Your task to perform on an android device: install app "Skype" Image 0: 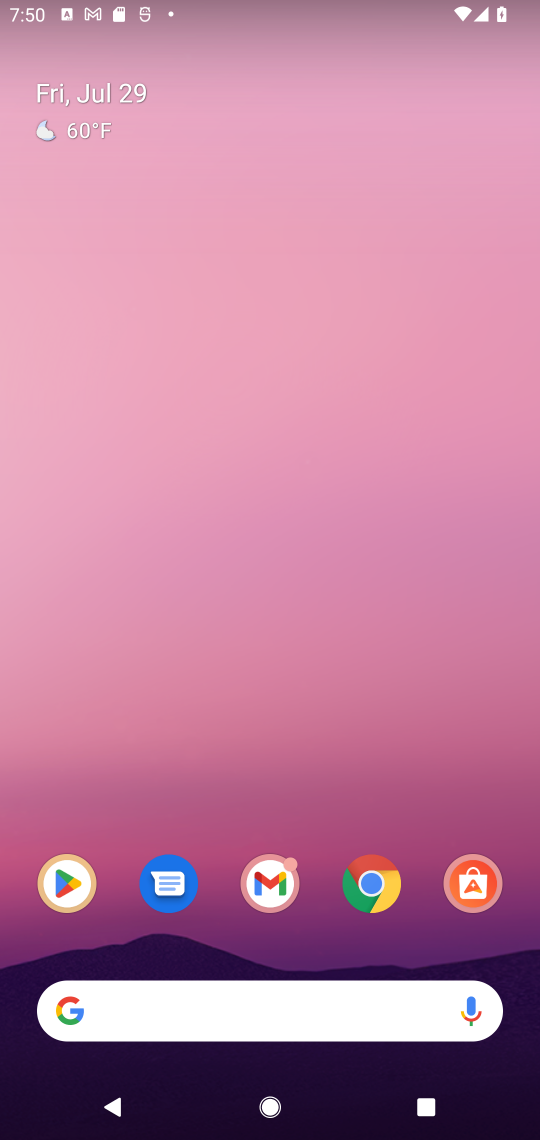
Step 0: click (84, 882)
Your task to perform on an android device: install app "Skype" Image 1: 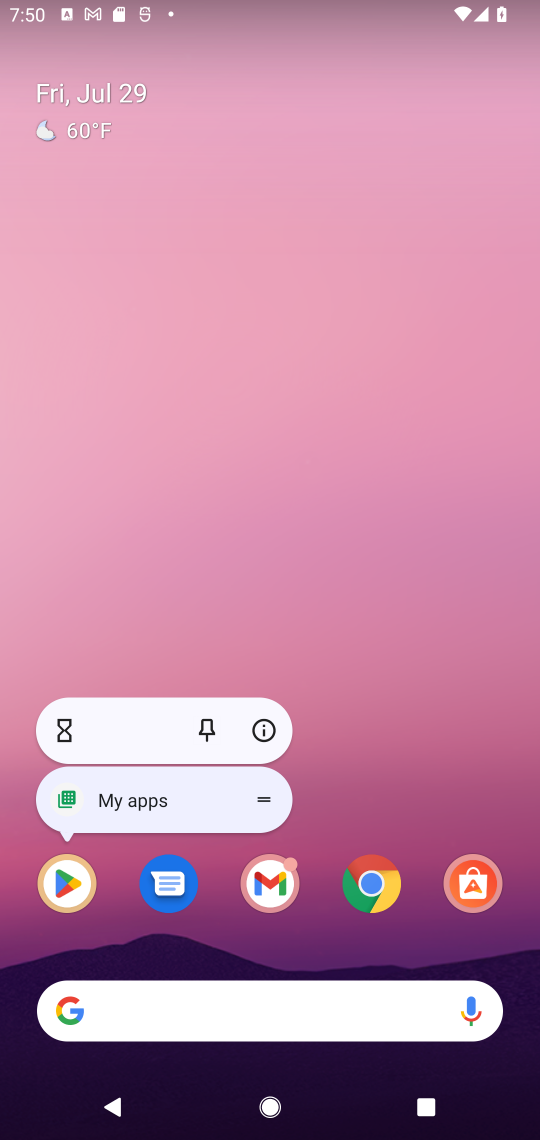
Step 1: click (54, 884)
Your task to perform on an android device: install app "Skype" Image 2: 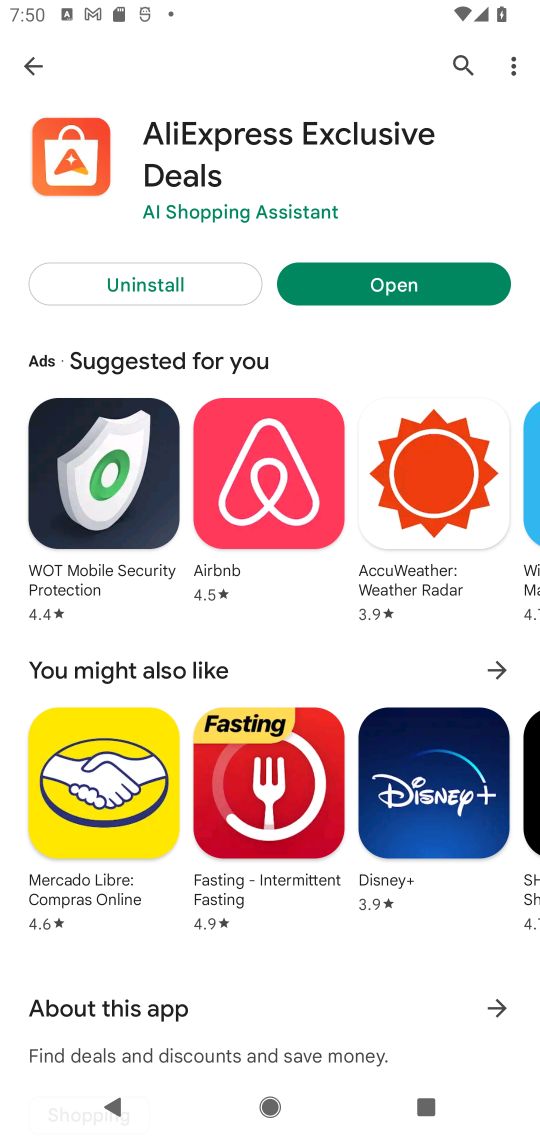
Step 2: click (466, 71)
Your task to perform on an android device: install app "Skype" Image 3: 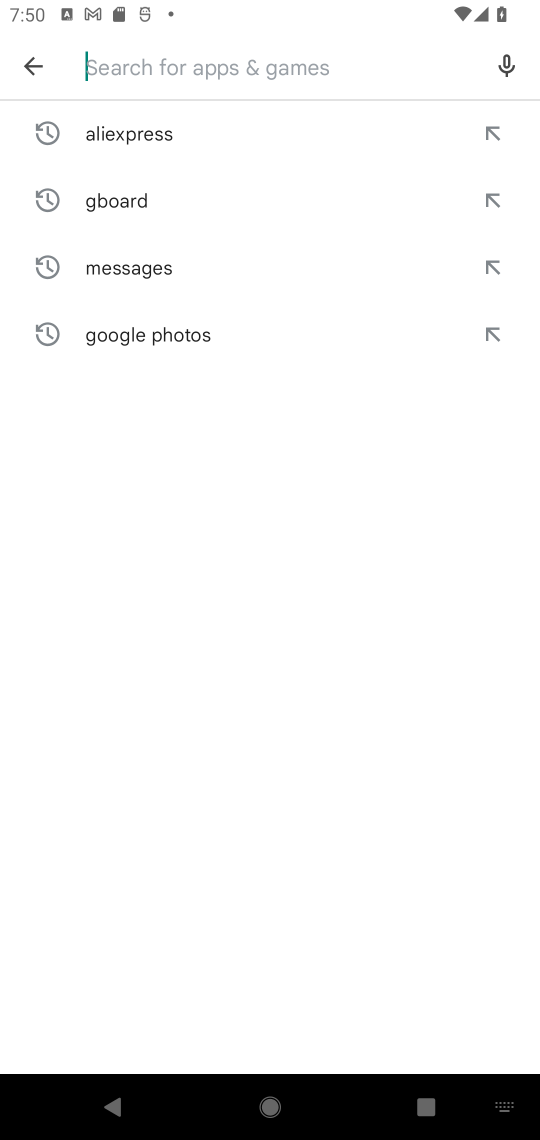
Step 3: click (141, 57)
Your task to perform on an android device: install app "Skype" Image 4: 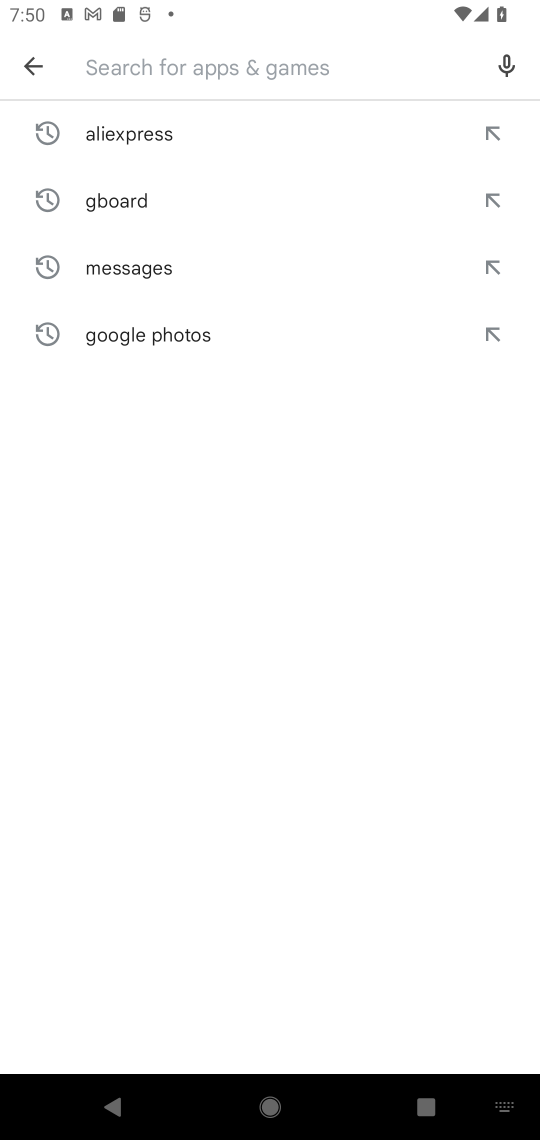
Step 4: type "skype"
Your task to perform on an android device: install app "Skype" Image 5: 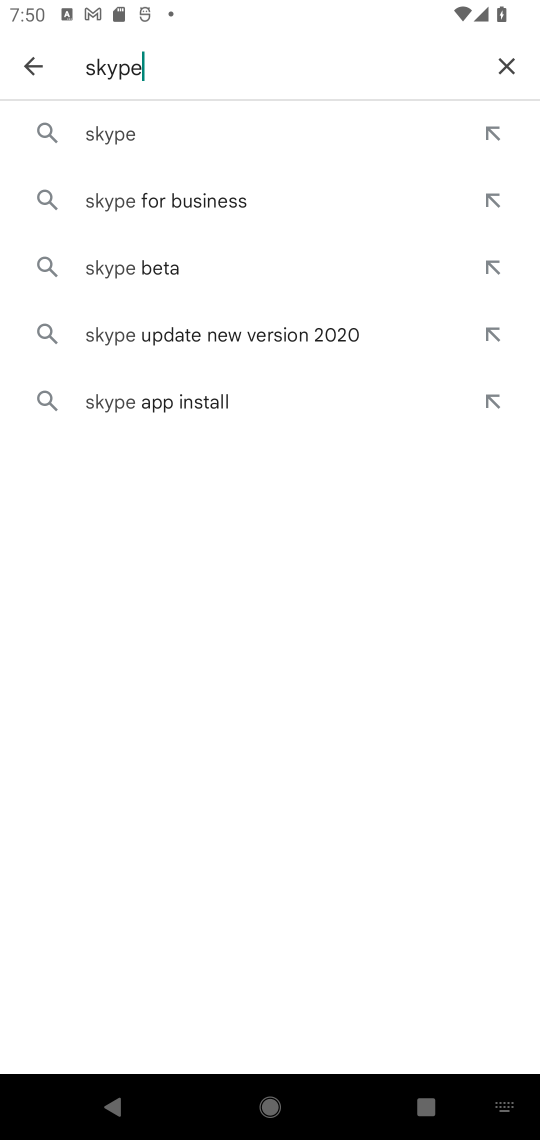
Step 5: click (154, 119)
Your task to perform on an android device: install app "Skype" Image 6: 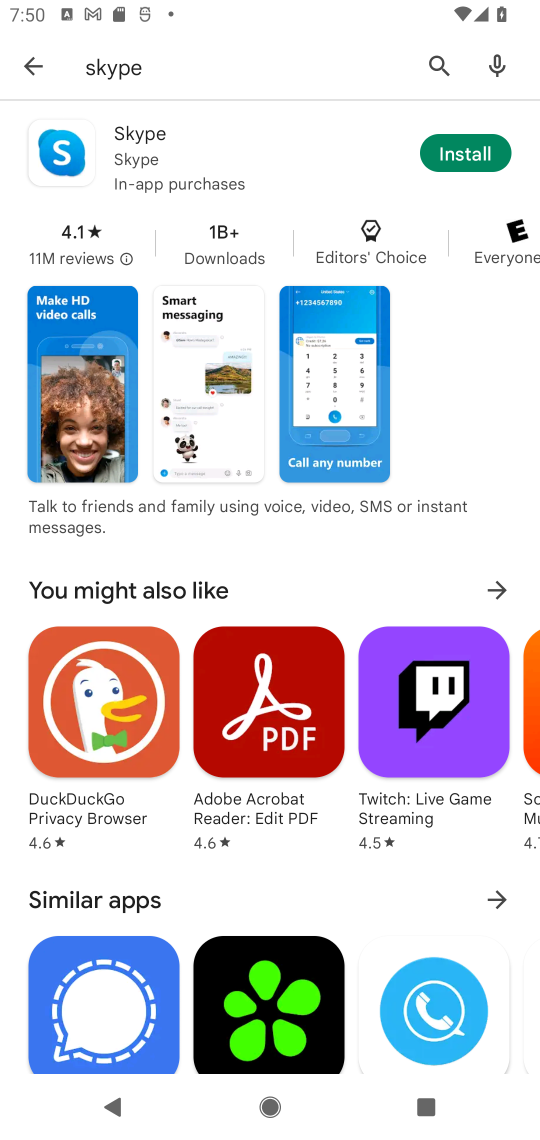
Step 6: click (452, 158)
Your task to perform on an android device: install app "Skype" Image 7: 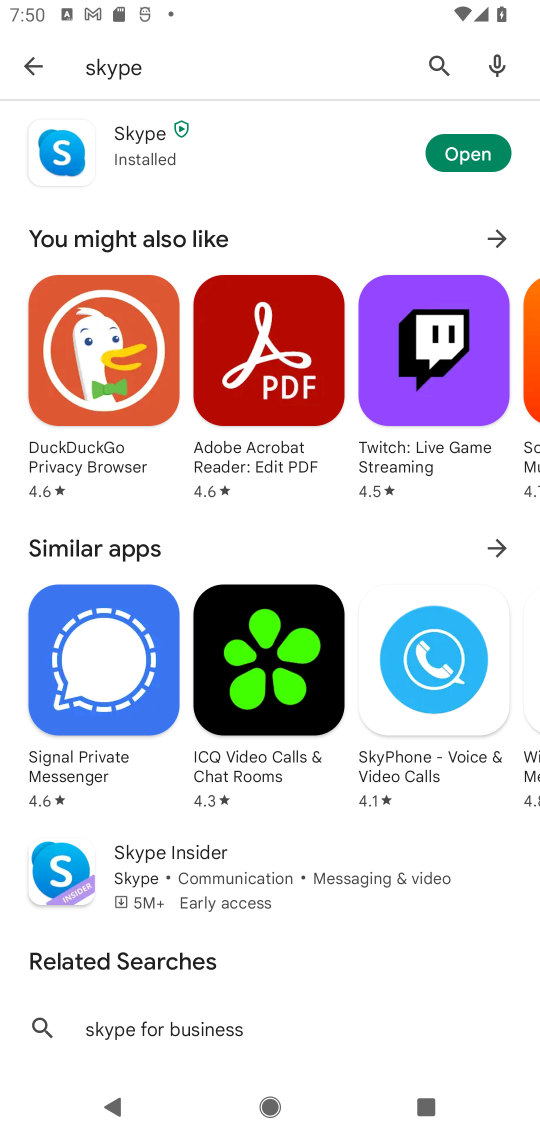
Step 7: task complete